Your task to perform on an android device: turn off priority inbox in the gmail app Image 0: 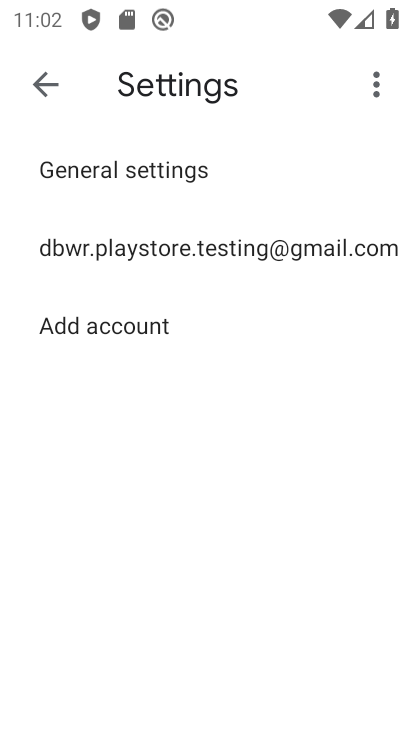
Step 0: press home button
Your task to perform on an android device: turn off priority inbox in the gmail app Image 1: 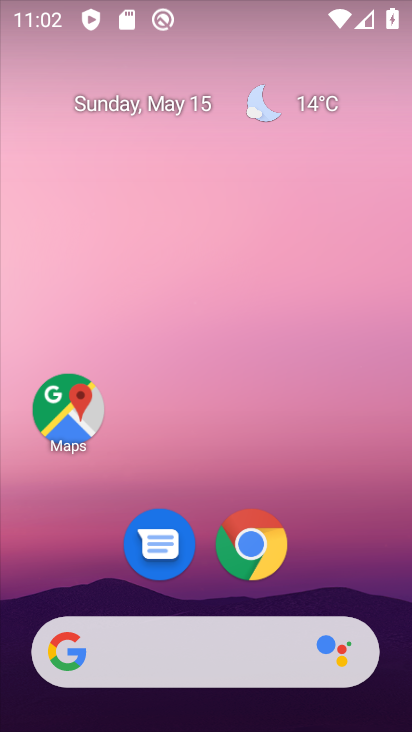
Step 1: drag from (198, 644) to (282, 114)
Your task to perform on an android device: turn off priority inbox in the gmail app Image 2: 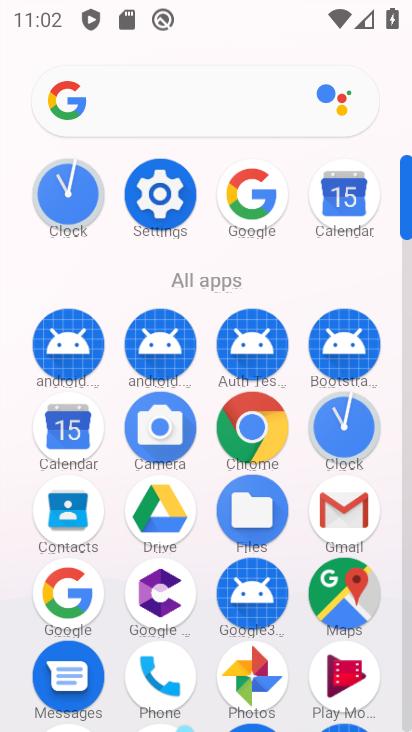
Step 2: click (356, 511)
Your task to perform on an android device: turn off priority inbox in the gmail app Image 3: 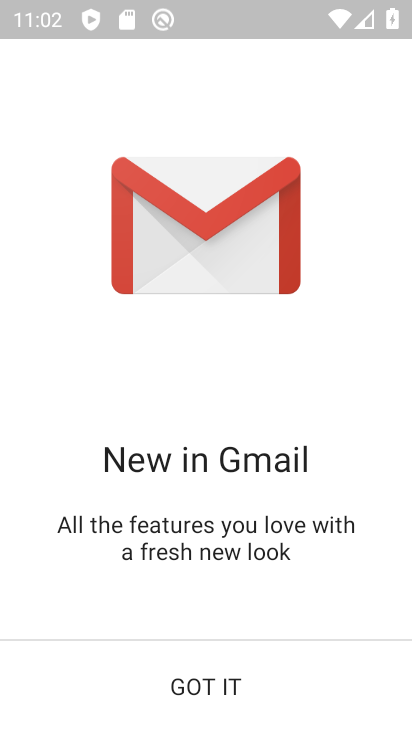
Step 3: click (220, 684)
Your task to perform on an android device: turn off priority inbox in the gmail app Image 4: 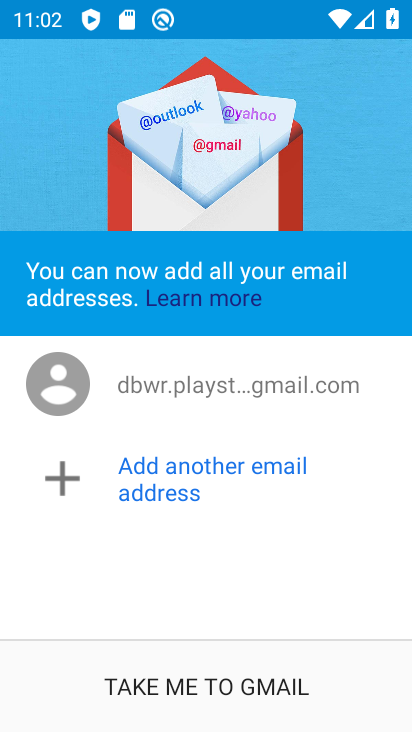
Step 4: click (242, 697)
Your task to perform on an android device: turn off priority inbox in the gmail app Image 5: 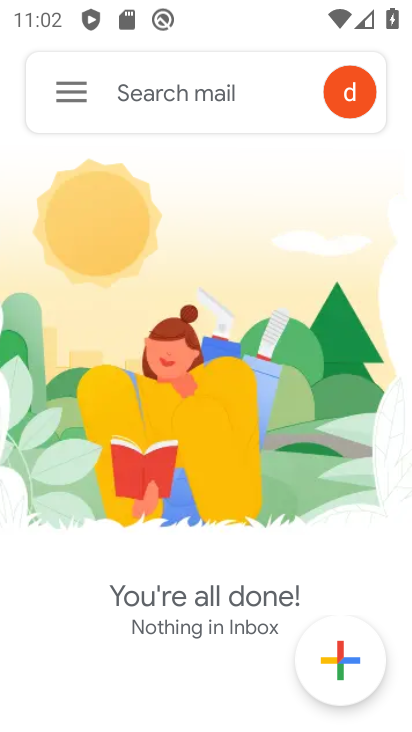
Step 5: click (94, 96)
Your task to perform on an android device: turn off priority inbox in the gmail app Image 6: 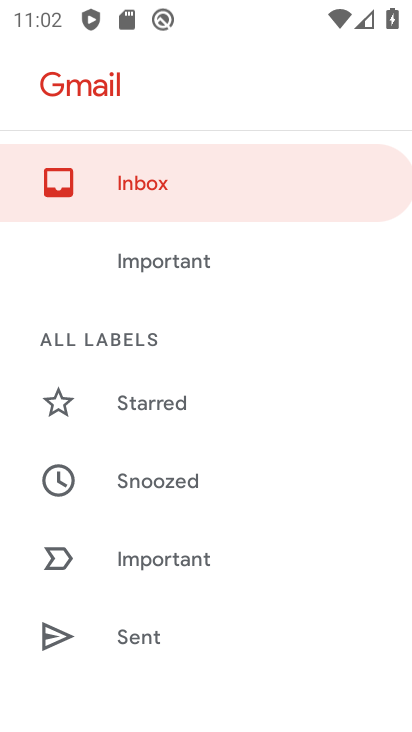
Step 6: drag from (235, 593) to (375, 193)
Your task to perform on an android device: turn off priority inbox in the gmail app Image 7: 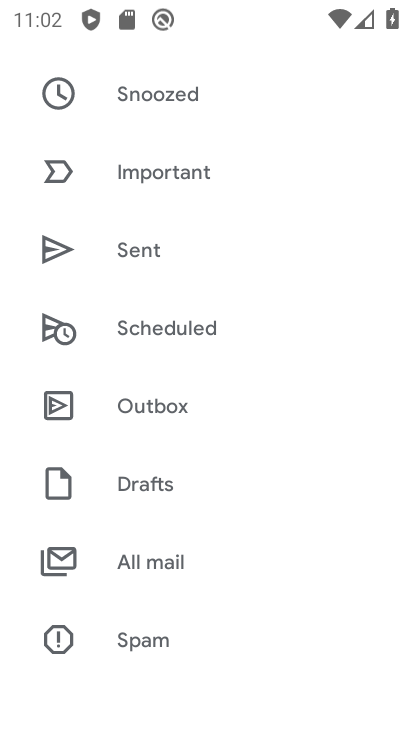
Step 7: drag from (270, 621) to (355, 312)
Your task to perform on an android device: turn off priority inbox in the gmail app Image 8: 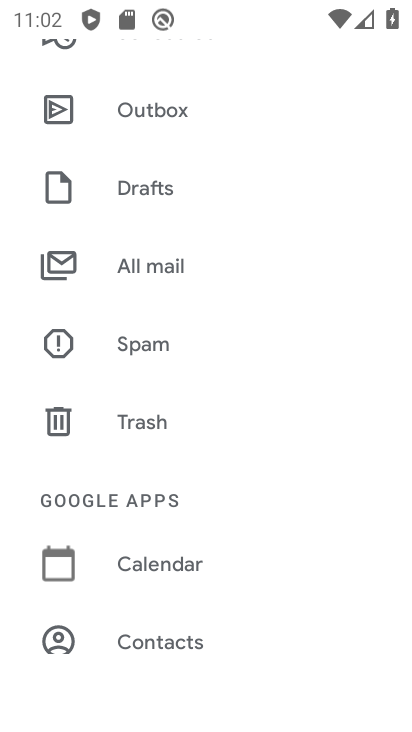
Step 8: drag from (195, 585) to (275, 219)
Your task to perform on an android device: turn off priority inbox in the gmail app Image 9: 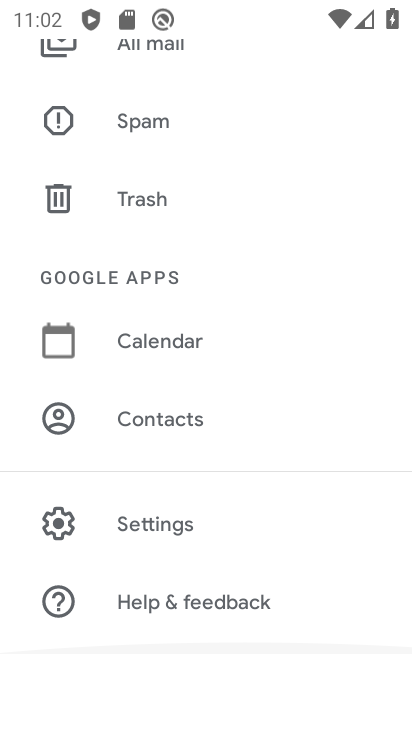
Step 9: click (179, 530)
Your task to perform on an android device: turn off priority inbox in the gmail app Image 10: 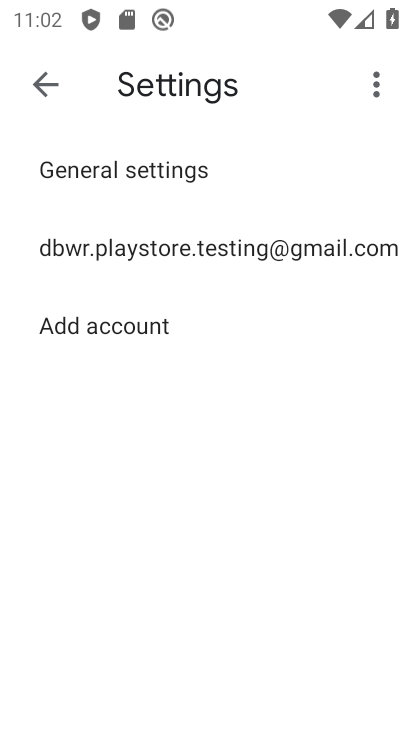
Step 10: click (260, 256)
Your task to perform on an android device: turn off priority inbox in the gmail app Image 11: 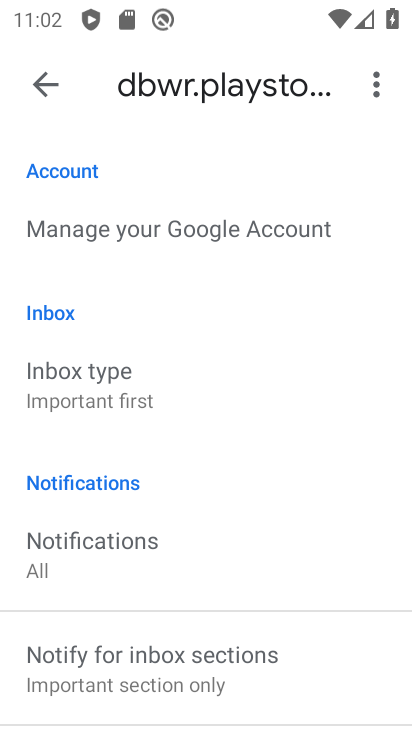
Step 11: drag from (172, 574) to (270, 155)
Your task to perform on an android device: turn off priority inbox in the gmail app Image 12: 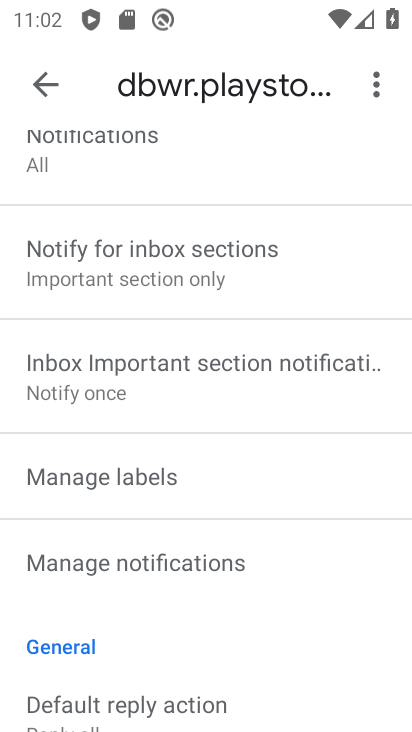
Step 12: drag from (244, 205) to (217, 645)
Your task to perform on an android device: turn off priority inbox in the gmail app Image 13: 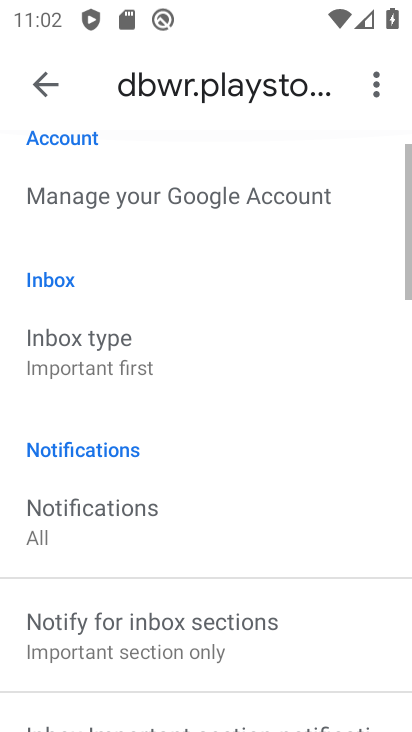
Step 13: drag from (250, 249) to (237, 510)
Your task to perform on an android device: turn off priority inbox in the gmail app Image 14: 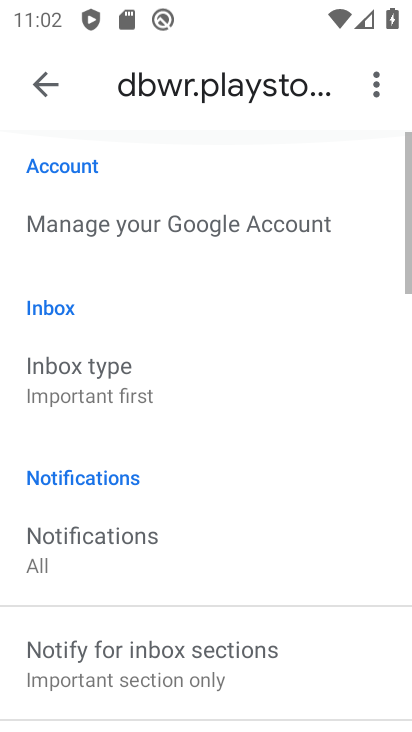
Step 14: click (196, 417)
Your task to perform on an android device: turn off priority inbox in the gmail app Image 15: 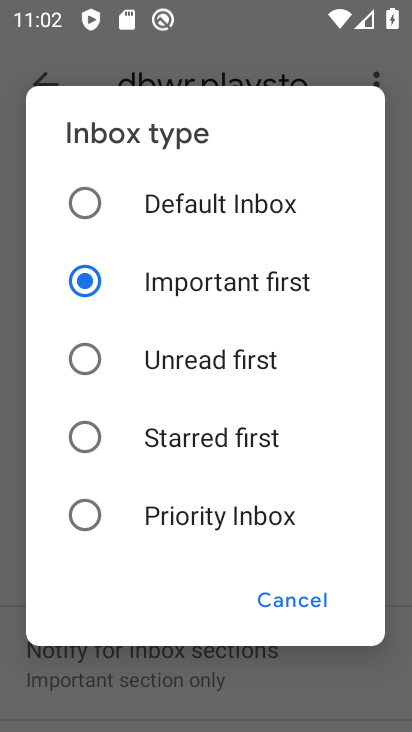
Step 15: task complete